Your task to perform on an android device: Turn off the flashlight Image 0: 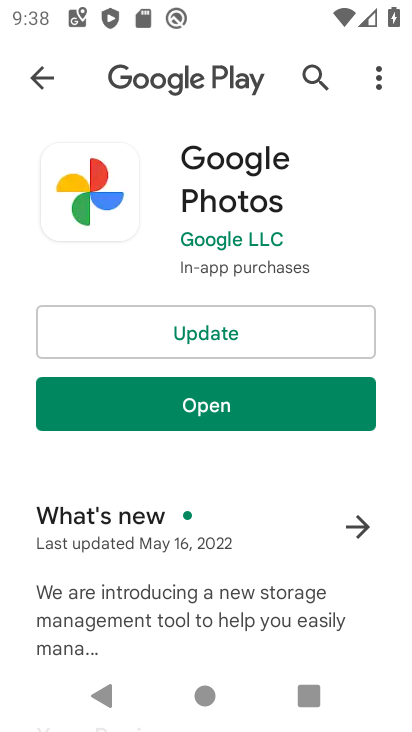
Step 0: press home button
Your task to perform on an android device: Turn off the flashlight Image 1: 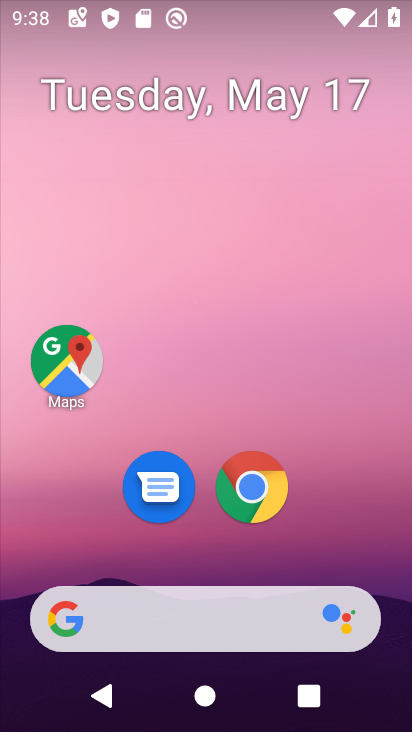
Step 1: drag from (234, 651) to (311, 243)
Your task to perform on an android device: Turn off the flashlight Image 2: 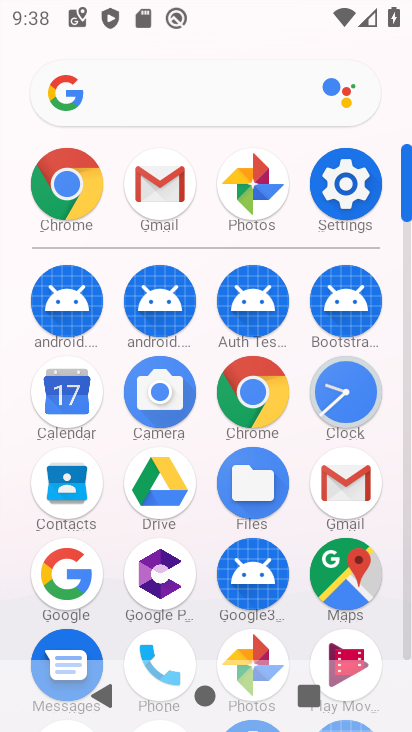
Step 2: click (350, 191)
Your task to perform on an android device: Turn off the flashlight Image 3: 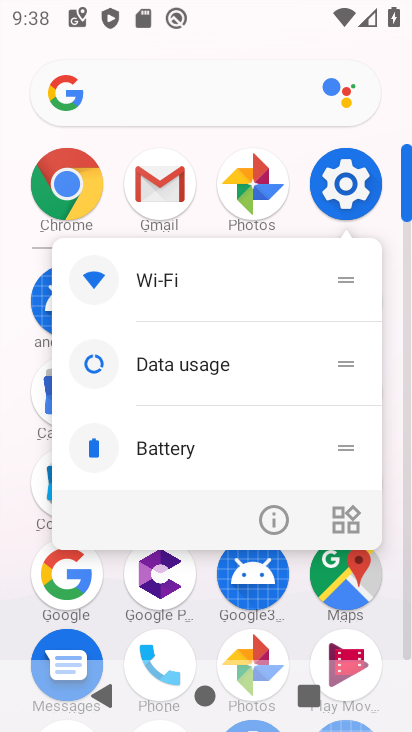
Step 3: click (349, 187)
Your task to perform on an android device: Turn off the flashlight Image 4: 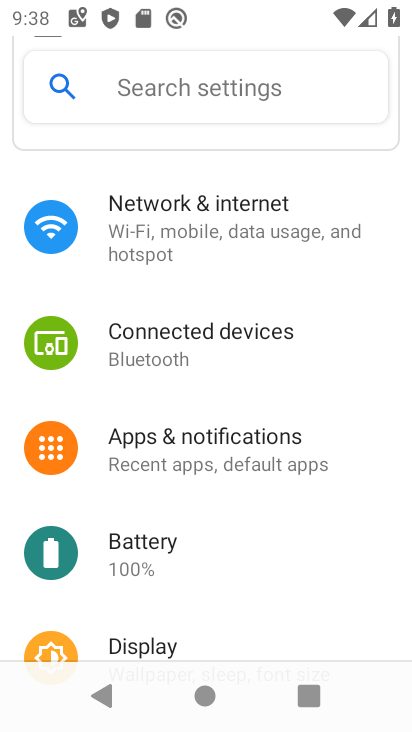
Step 4: click (171, 98)
Your task to perform on an android device: Turn off the flashlight Image 5: 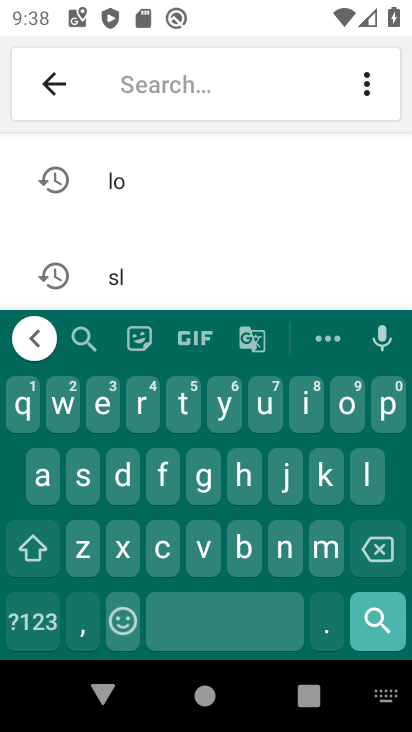
Step 5: click (158, 470)
Your task to perform on an android device: Turn off the flashlight Image 6: 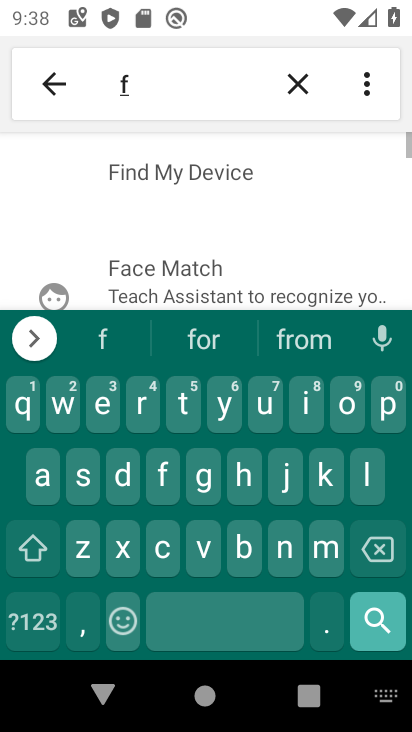
Step 6: click (373, 481)
Your task to perform on an android device: Turn off the flashlight Image 7: 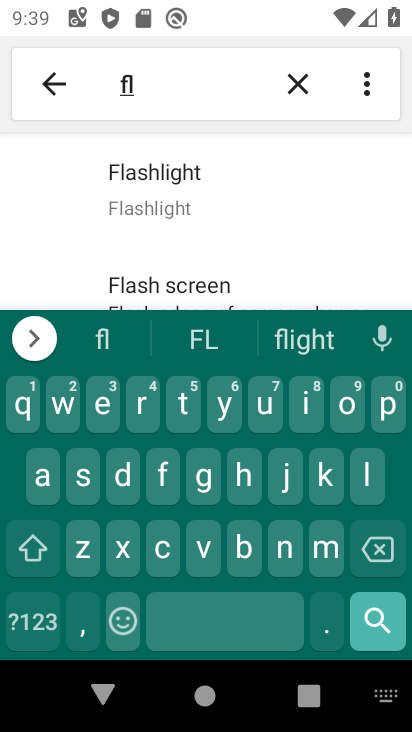
Step 7: click (179, 192)
Your task to perform on an android device: Turn off the flashlight Image 8: 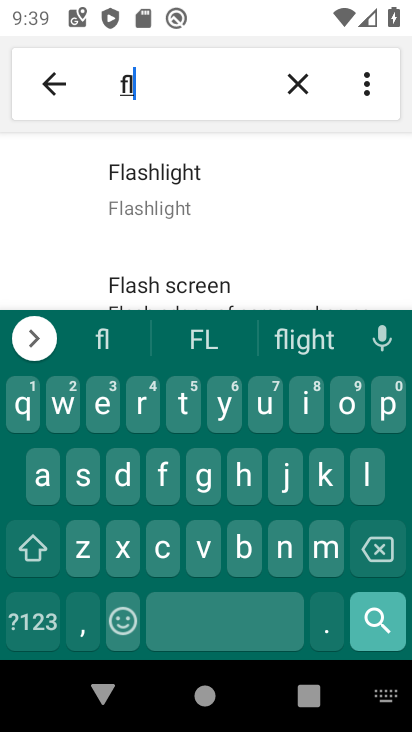
Step 8: task complete